Your task to perform on an android device: clear history in the chrome app Image 0: 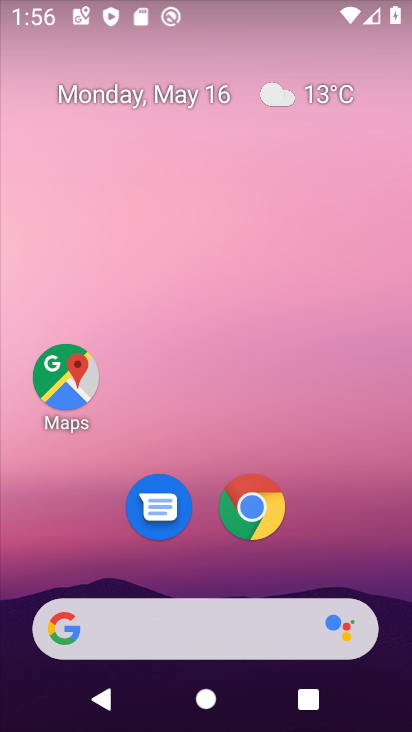
Step 0: drag from (370, 569) to (389, 143)
Your task to perform on an android device: clear history in the chrome app Image 1: 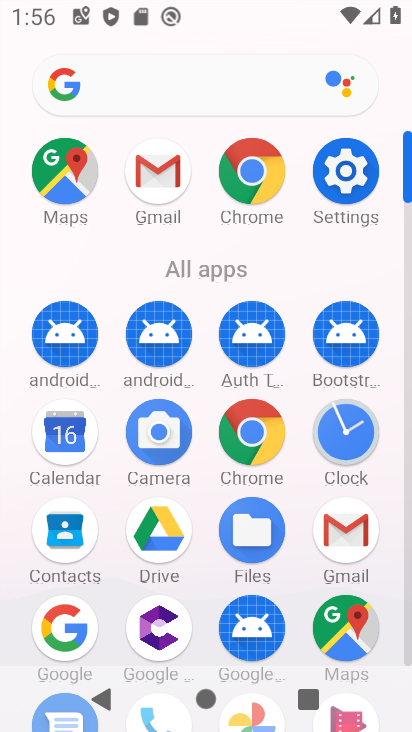
Step 1: click (274, 448)
Your task to perform on an android device: clear history in the chrome app Image 2: 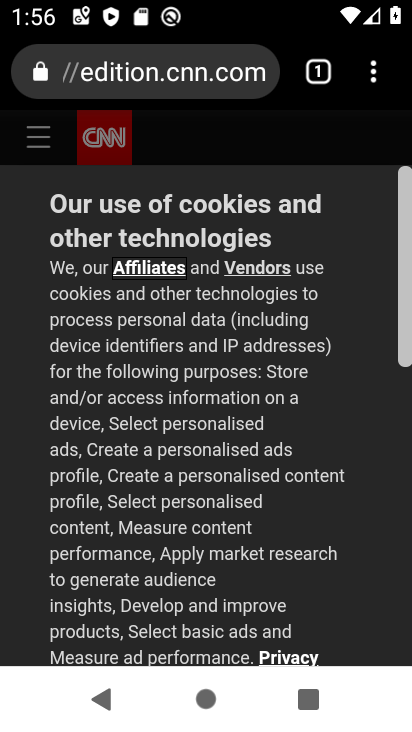
Step 2: click (373, 72)
Your task to perform on an android device: clear history in the chrome app Image 3: 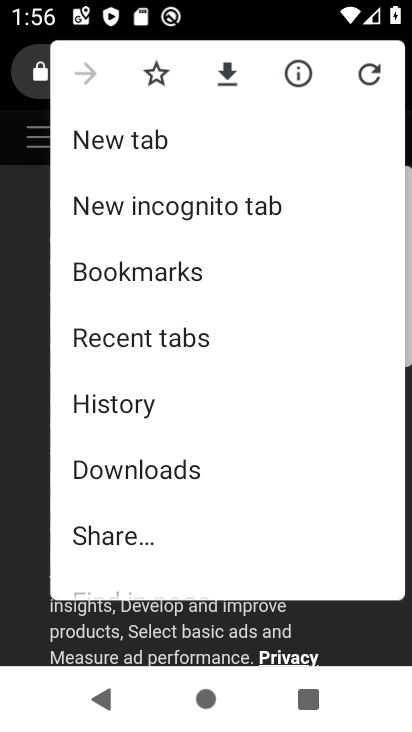
Step 3: click (186, 418)
Your task to perform on an android device: clear history in the chrome app Image 4: 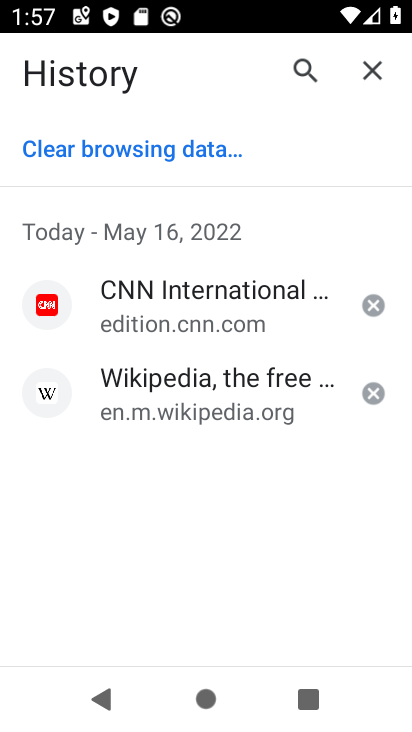
Step 4: click (199, 155)
Your task to perform on an android device: clear history in the chrome app Image 5: 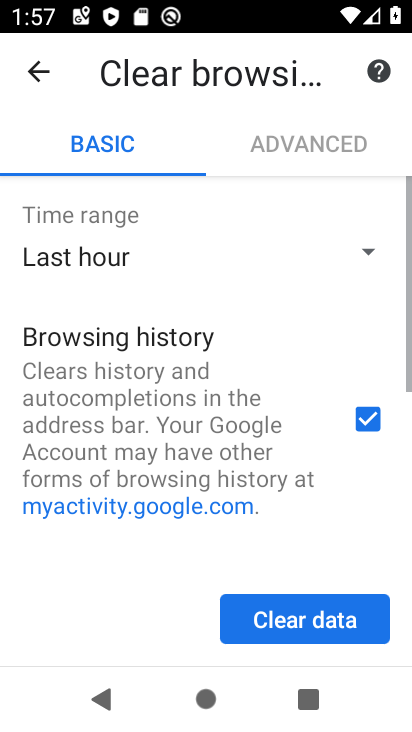
Step 5: click (361, 633)
Your task to perform on an android device: clear history in the chrome app Image 6: 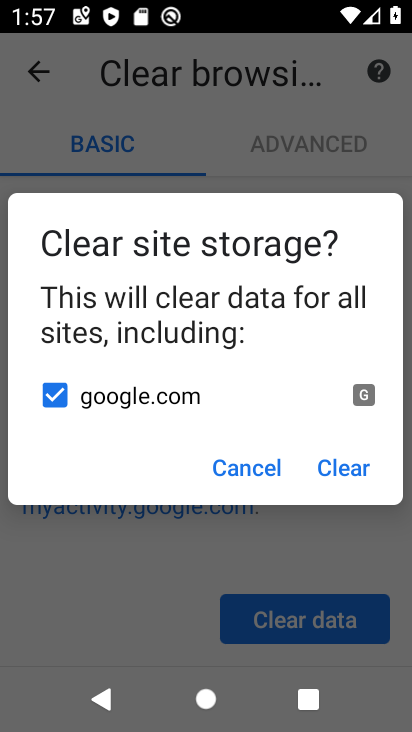
Step 6: click (370, 470)
Your task to perform on an android device: clear history in the chrome app Image 7: 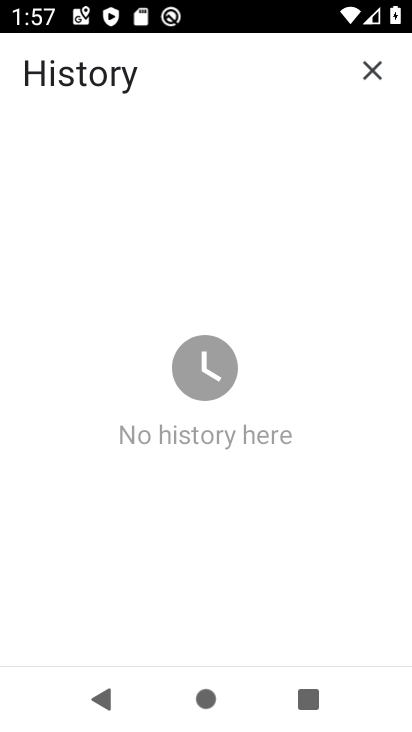
Step 7: task complete